Your task to perform on an android device: Open the stopwatch Image 0: 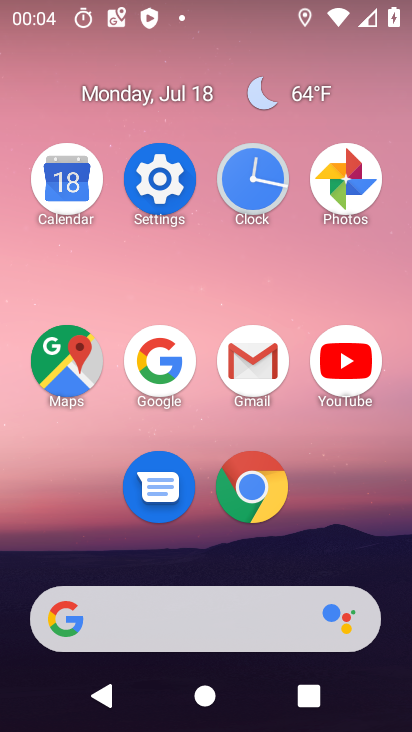
Step 0: click (237, 205)
Your task to perform on an android device: Open the stopwatch Image 1: 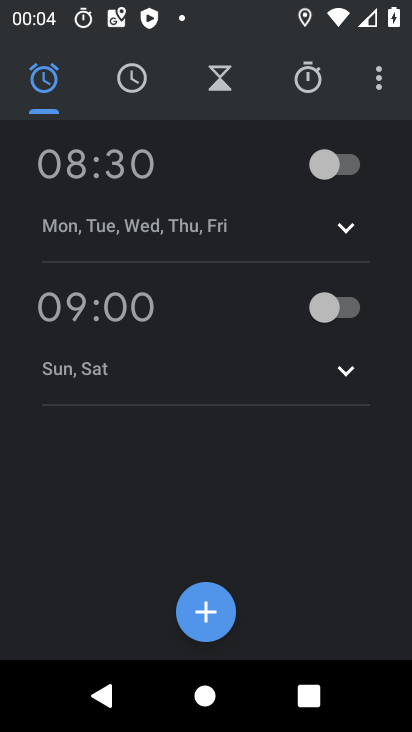
Step 1: click (330, 64)
Your task to perform on an android device: Open the stopwatch Image 2: 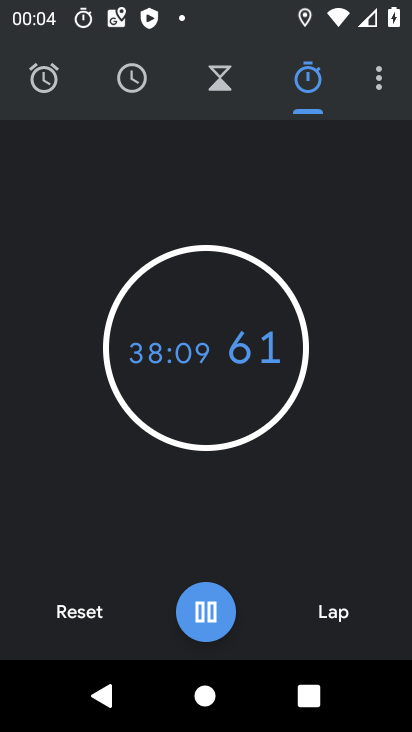
Step 2: task complete